Your task to perform on an android device: turn off improve location accuracy Image 0: 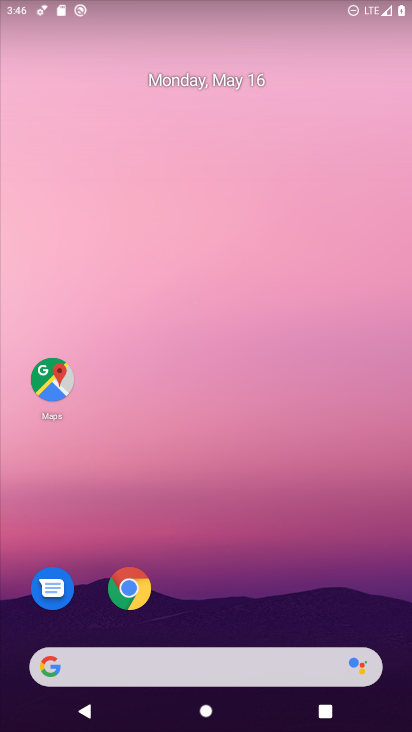
Step 0: drag from (346, 594) to (305, 0)
Your task to perform on an android device: turn off improve location accuracy Image 1: 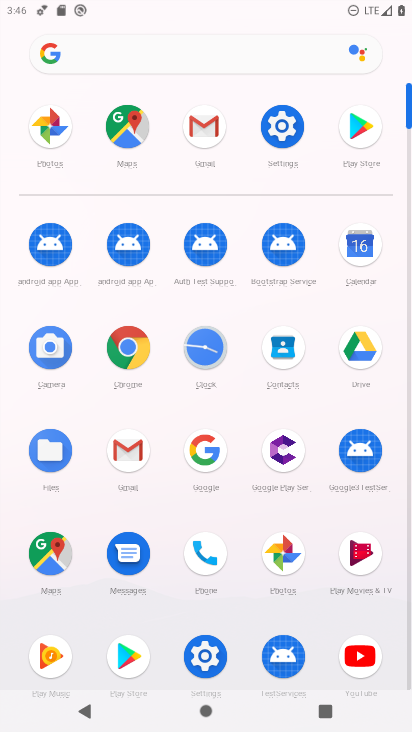
Step 1: click (285, 118)
Your task to perform on an android device: turn off improve location accuracy Image 2: 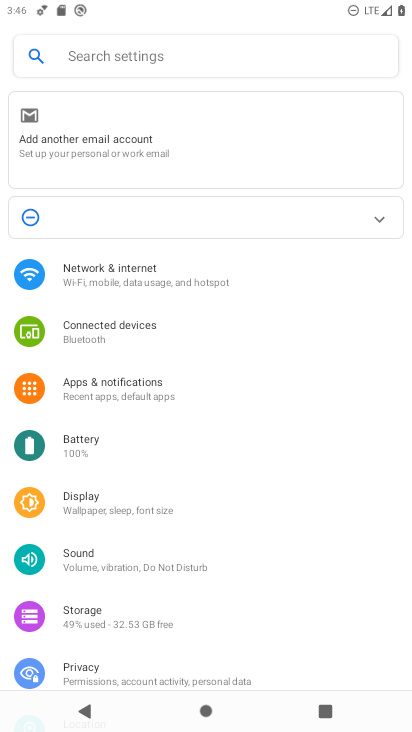
Step 2: drag from (214, 630) to (231, 340)
Your task to perform on an android device: turn off improve location accuracy Image 3: 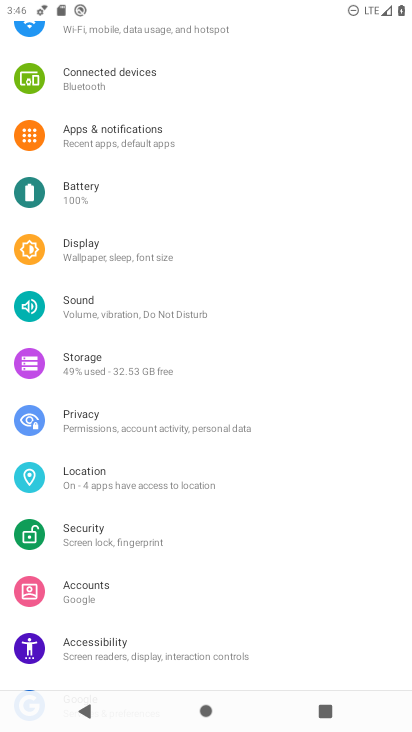
Step 3: click (91, 485)
Your task to perform on an android device: turn off improve location accuracy Image 4: 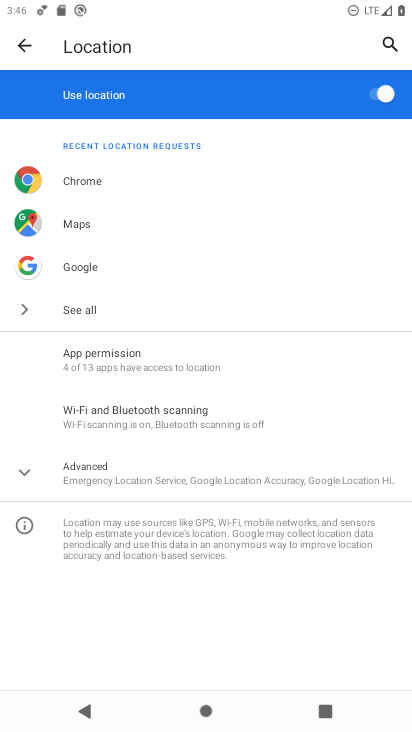
Step 4: click (22, 483)
Your task to perform on an android device: turn off improve location accuracy Image 5: 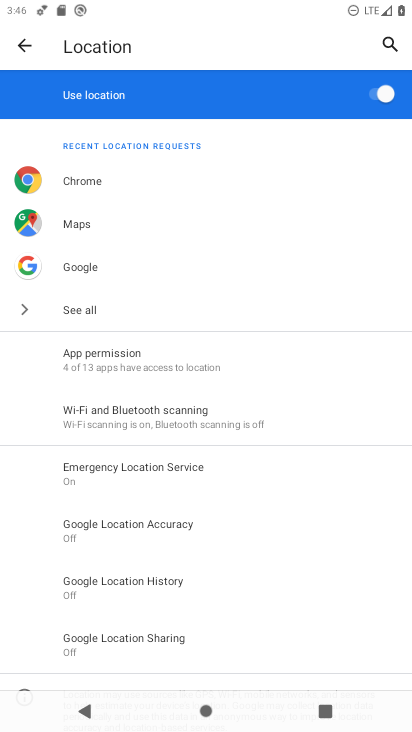
Step 5: click (115, 530)
Your task to perform on an android device: turn off improve location accuracy Image 6: 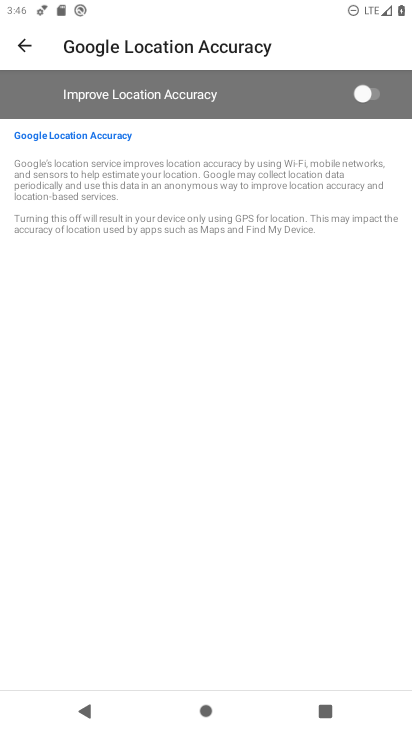
Step 6: task complete